Your task to perform on an android device: Open wifi settings Image 0: 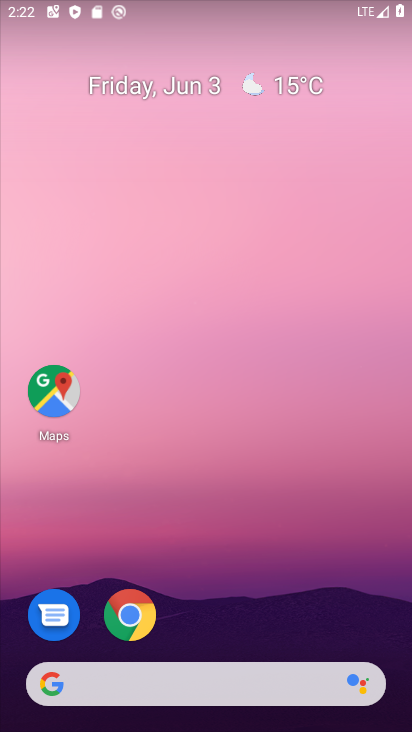
Step 0: click (297, 77)
Your task to perform on an android device: Open wifi settings Image 1: 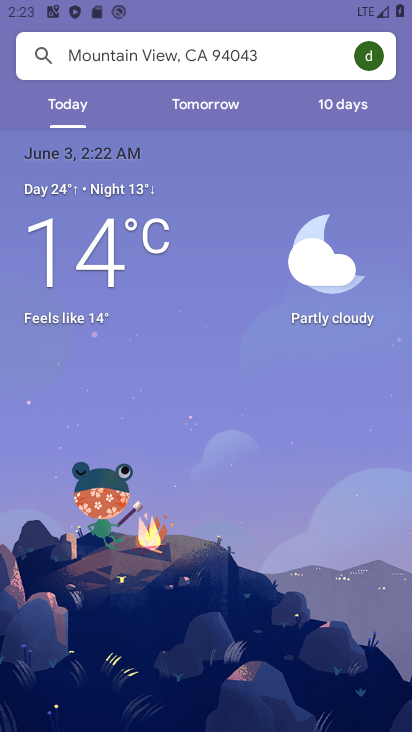
Step 1: press home button
Your task to perform on an android device: Open wifi settings Image 2: 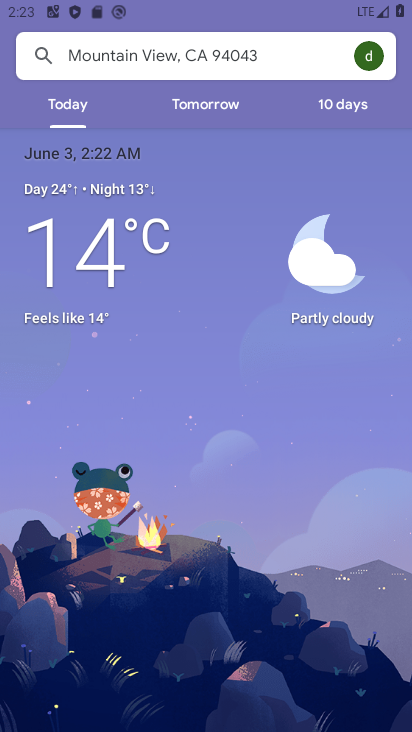
Step 2: press home button
Your task to perform on an android device: Open wifi settings Image 3: 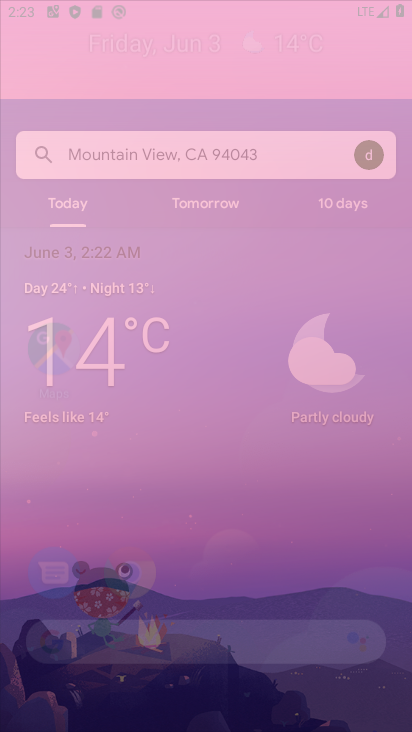
Step 3: drag from (257, 278) to (274, 15)
Your task to perform on an android device: Open wifi settings Image 4: 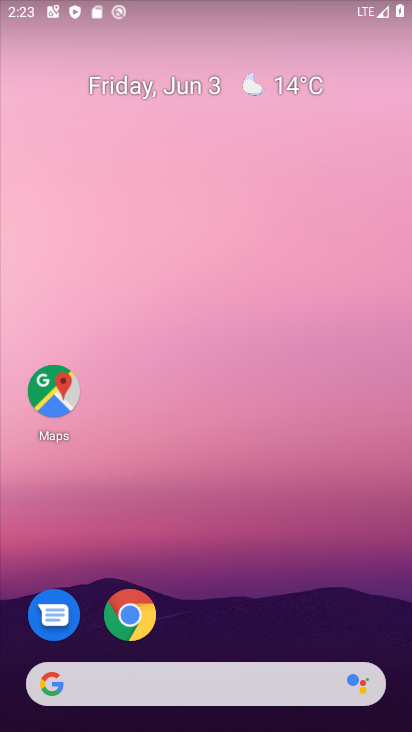
Step 4: drag from (188, 648) to (361, 12)
Your task to perform on an android device: Open wifi settings Image 5: 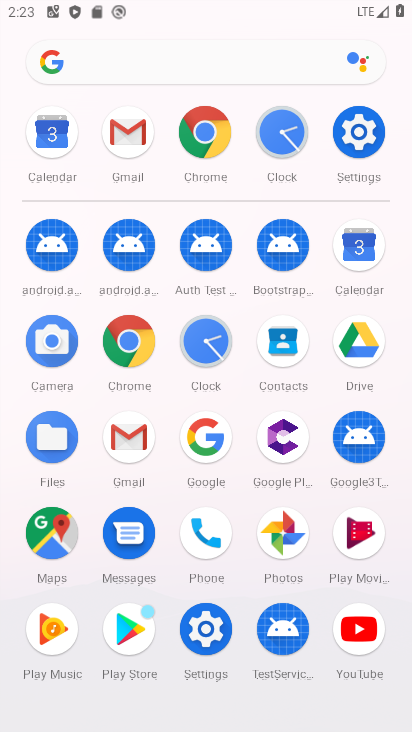
Step 5: click (361, 154)
Your task to perform on an android device: Open wifi settings Image 6: 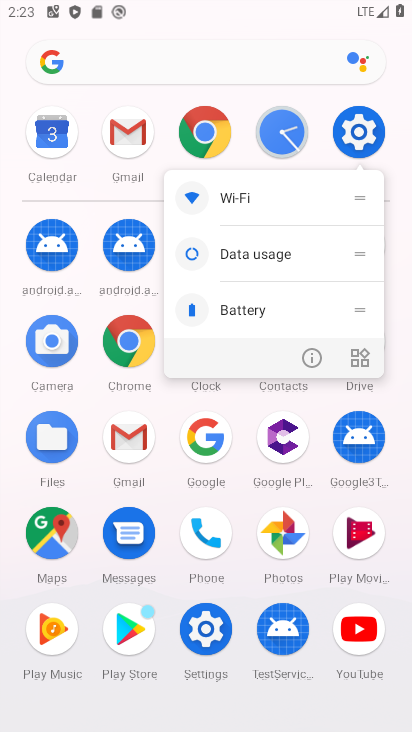
Step 6: click (228, 200)
Your task to perform on an android device: Open wifi settings Image 7: 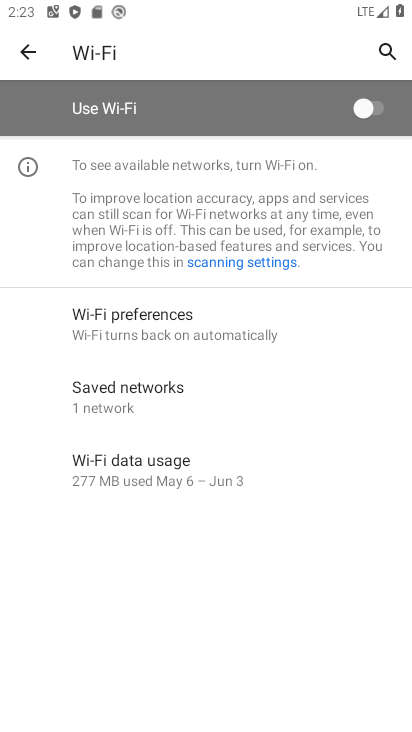
Step 7: click (342, 105)
Your task to perform on an android device: Open wifi settings Image 8: 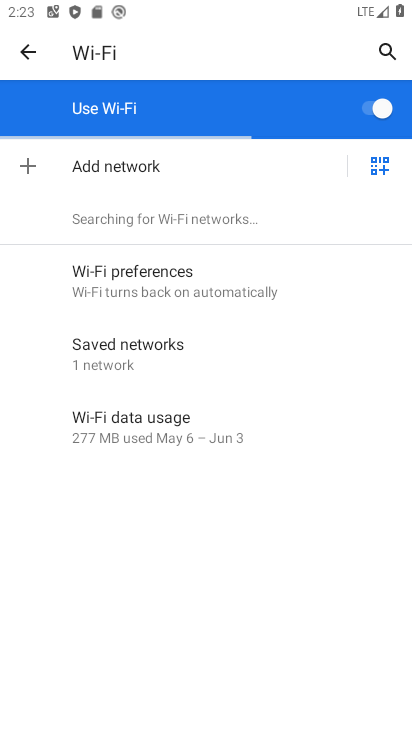
Step 8: task complete